Your task to perform on an android device: Clear the cart on bestbuy.com. Image 0: 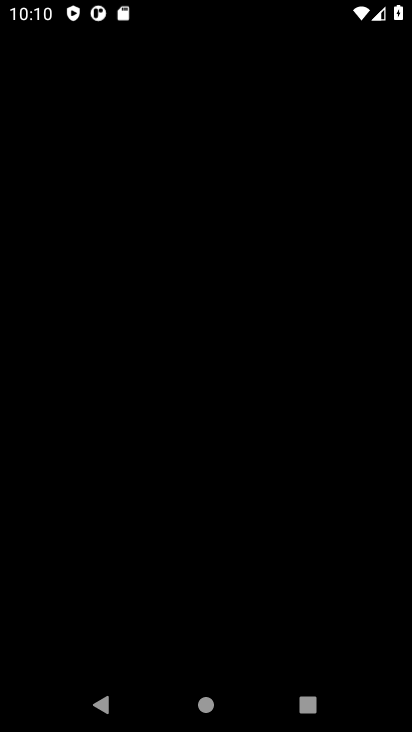
Step 0: press home button
Your task to perform on an android device: Clear the cart on bestbuy.com. Image 1: 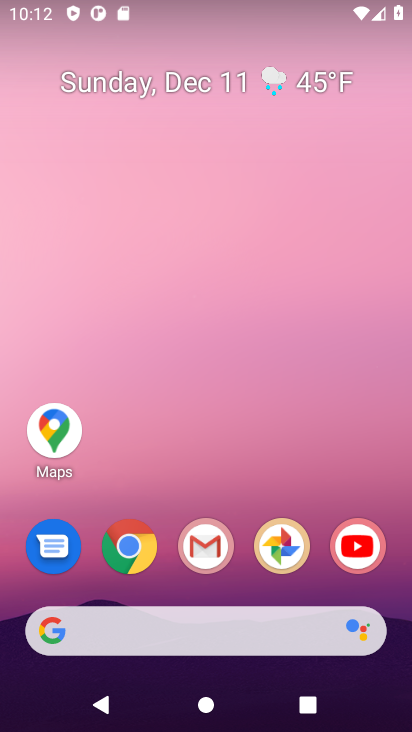
Step 1: click (139, 552)
Your task to perform on an android device: Clear the cart on bestbuy.com. Image 2: 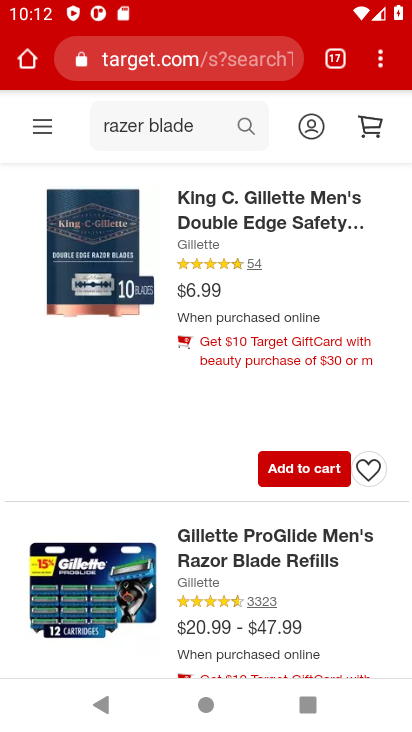
Step 2: click (164, 64)
Your task to perform on an android device: Clear the cart on bestbuy.com. Image 3: 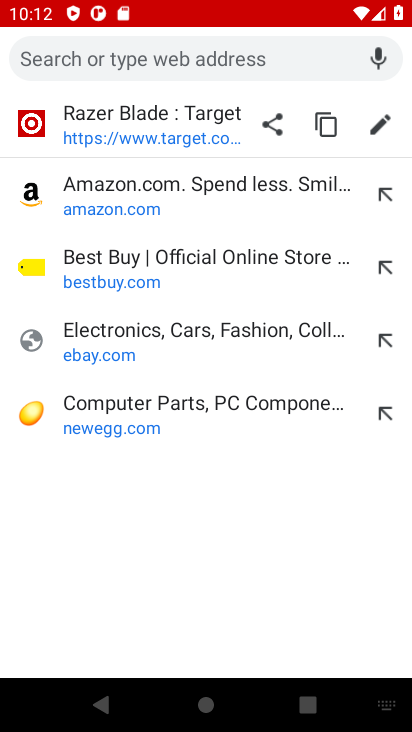
Step 3: click (102, 268)
Your task to perform on an android device: Clear the cart on bestbuy.com. Image 4: 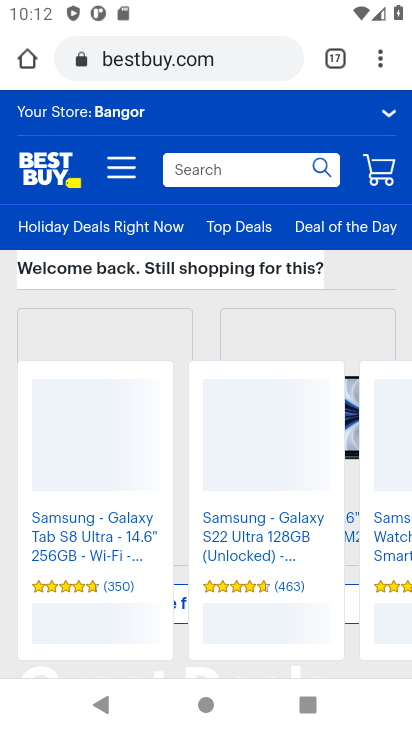
Step 4: click (377, 172)
Your task to perform on an android device: Clear the cart on bestbuy.com. Image 5: 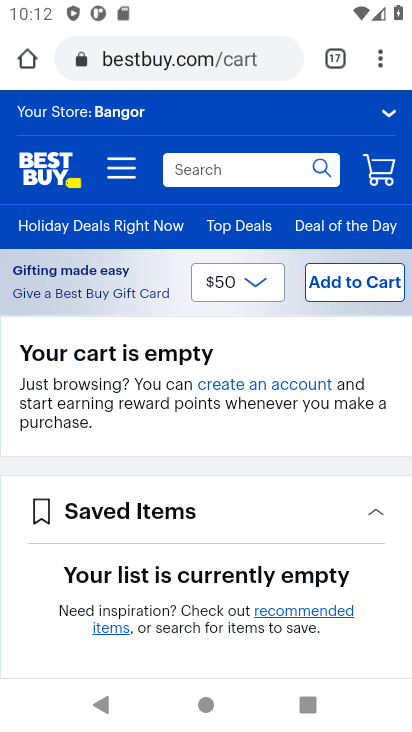
Step 5: task complete